Your task to perform on an android device: toggle airplane mode Image 0: 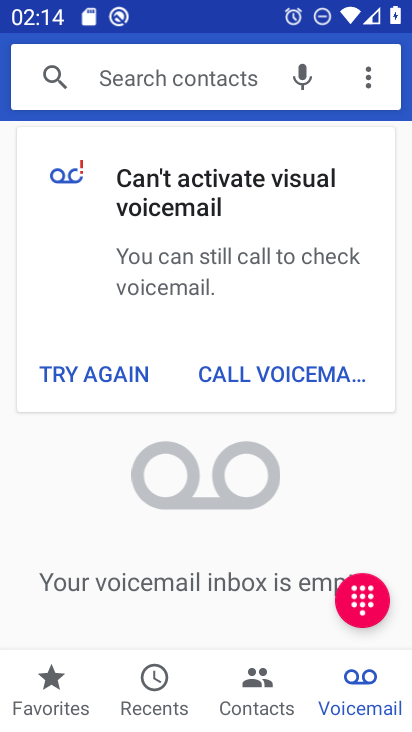
Step 0: press home button
Your task to perform on an android device: toggle airplane mode Image 1: 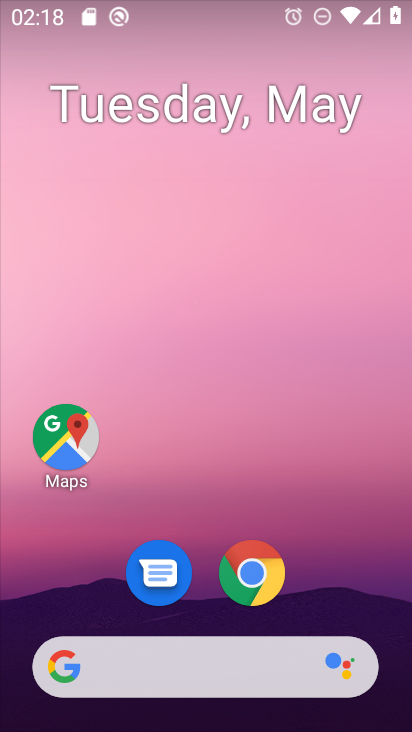
Step 1: drag from (233, 658) to (247, 81)
Your task to perform on an android device: toggle airplane mode Image 2: 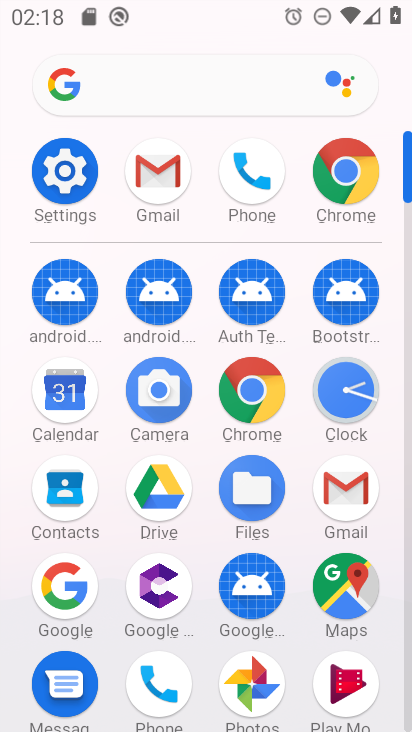
Step 2: click (71, 152)
Your task to perform on an android device: toggle airplane mode Image 3: 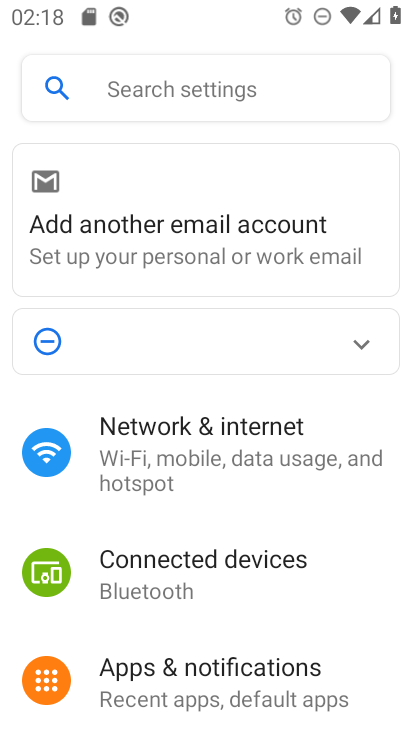
Step 3: click (264, 449)
Your task to perform on an android device: toggle airplane mode Image 4: 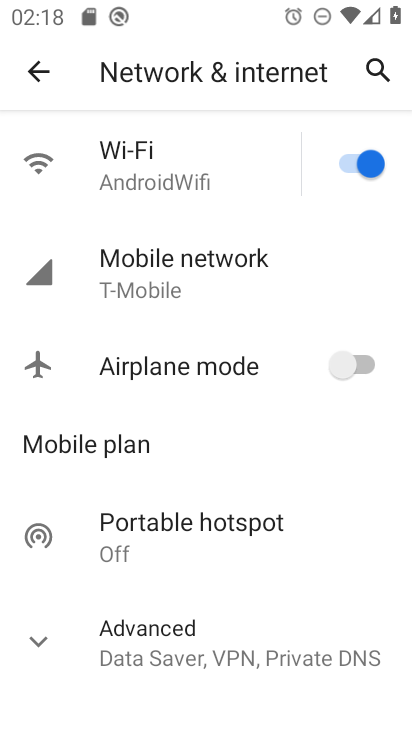
Step 4: click (344, 369)
Your task to perform on an android device: toggle airplane mode Image 5: 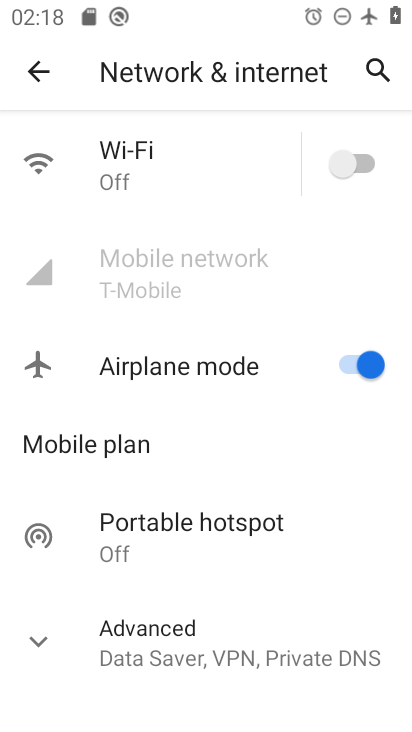
Step 5: task complete